Your task to perform on an android device: Clear the shopping cart on bestbuy. Search for "alienware aurora" on bestbuy, select the first entry, and add it to the cart. Image 0: 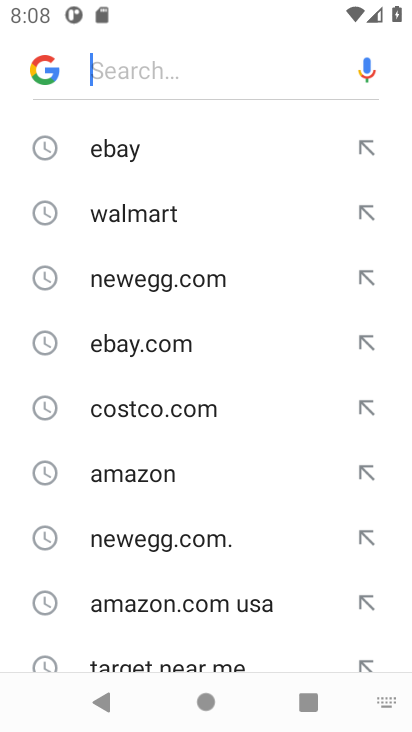
Step 0: click (250, 533)
Your task to perform on an android device: Clear the shopping cart on bestbuy. Search for "alienware aurora" on bestbuy, select the first entry, and add it to the cart. Image 1: 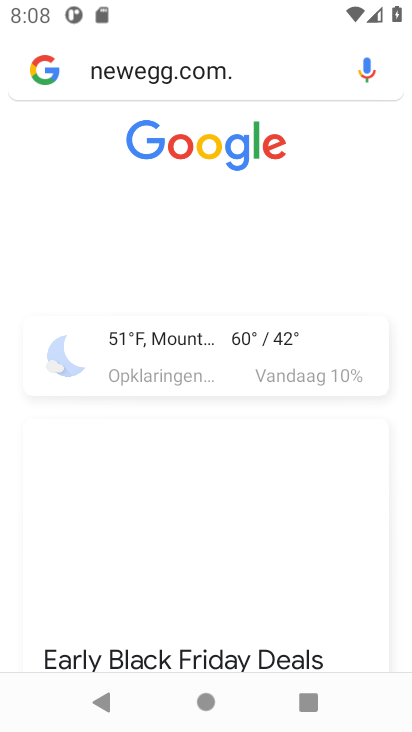
Step 1: press home button
Your task to perform on an android device: Clear the shopping cart on bestbuy. Search for "alienware aurora" on bestbuy, select the first entry, and add it to the cart. Image 2: 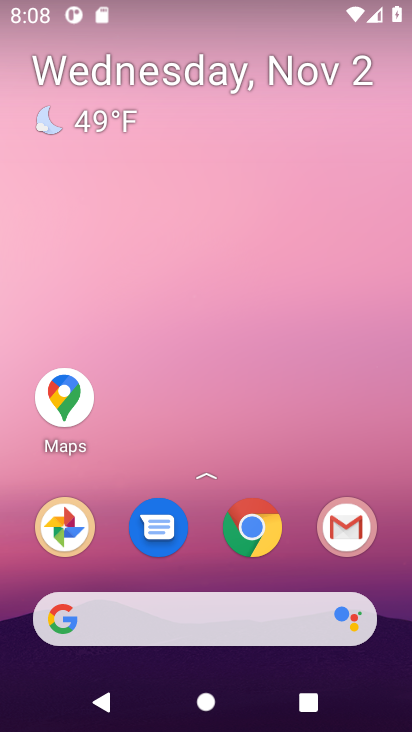
Step 2: click (257, 520)
Your task to perform on an android device: Clear the shopping cart on bestbuy. Search for "alienware aurora" on bestbuy, select the first entry, and add it to the cart. Image 3: 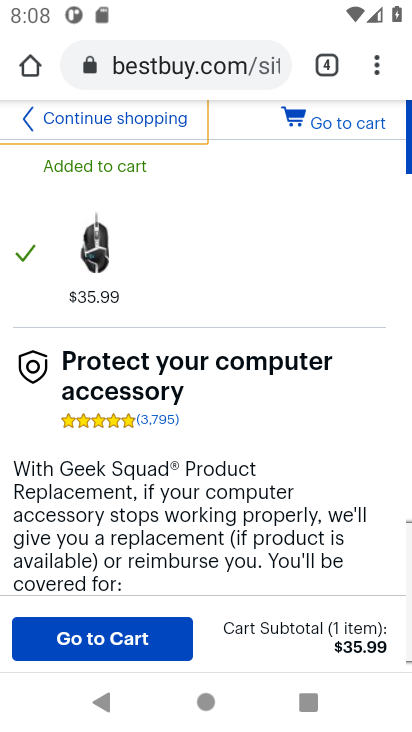
Step 3: click (325, 125)
Your task to perform on an android device: Clear the shopping cart on bestbuy. Search for "alienware aurora" on bestbuy, select the first entry, and add it to the cart. Image 4: 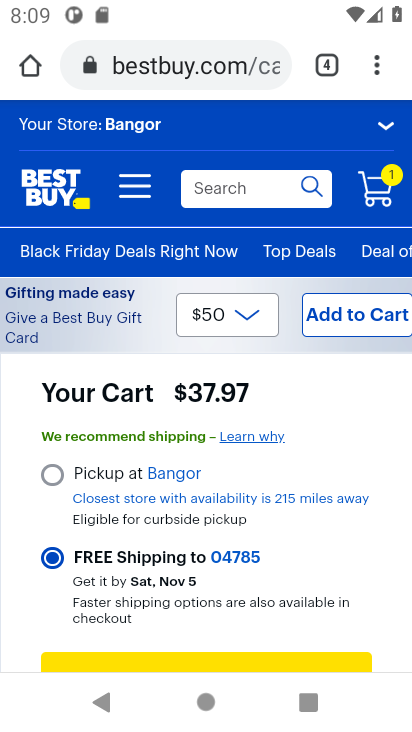
Step 4: drag from (368, 493) to (295, 6)
Your task to perform on an android device: Clear the shopping cart on bestbuy. Search for "alienware aurora" on bestbuy, select the first entry, and add it to the cart. Image 5: 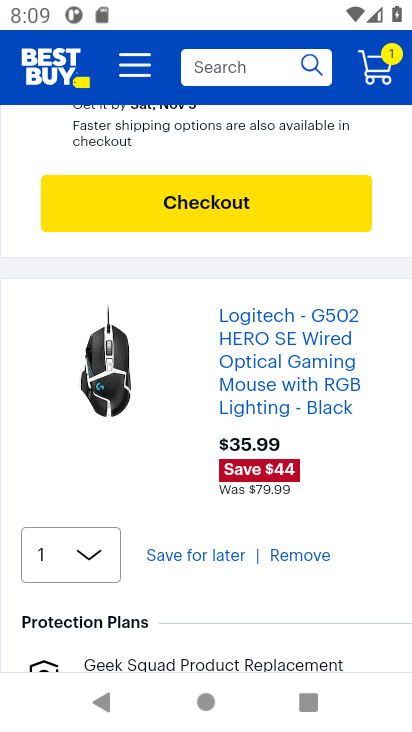
Step 5: click (296, 554)
Your task to perform on an android device: Clear the shopping cart on bestbuy. Search for "alienware aurora" on bestbuy, select the first entry, and add it to the cart. Image 6: 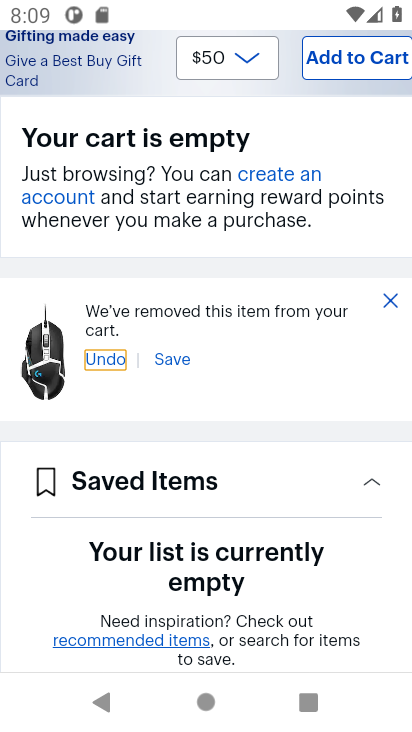
Step 6: drag from (227, 275) to (271, 589)
Your task to perform on an android device: Clear the shopping cart on bestbuy. Search for "alienware aurora" on bestbuy, select the first entry, and add it to the cart. Image 7: 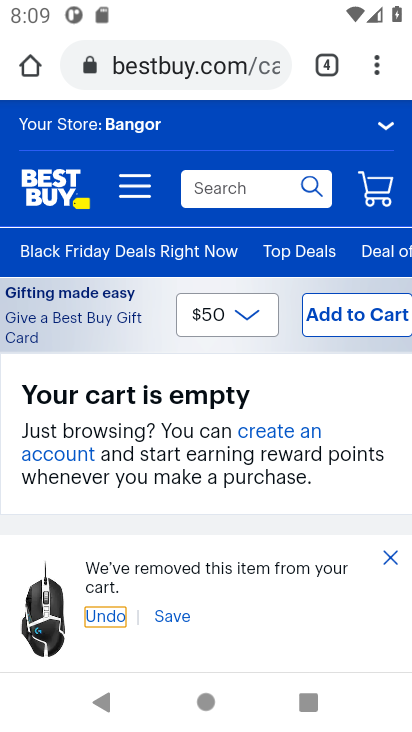
Step 7: click (245, 188)
Your task to perform on an android device: Clear the shopping cart on bestbuy. Search for "alienware aurora" on bestbuy, select the first entry, and add it to the cart. Image 8: 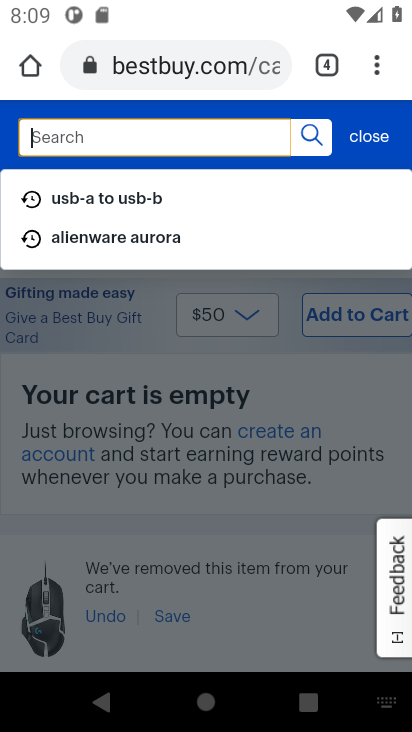
Step 8: type "alienware aurora"
Your task to perform on an android device: Clear the shopping cart on bestbuy. Search for "alienware aurora" on bestbuy, select the first entry, and add it to the cart. Image 9: 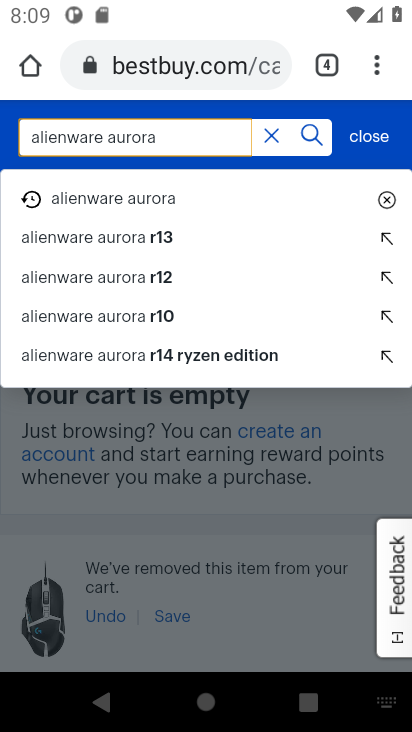
Step 9: click (100, 199)
Your task to perform on an android device: Clear the shopping cart on bestbuy. Search for "alienware aurora" on bestbuy, select the first entry, and add it to the cart. Image 10: 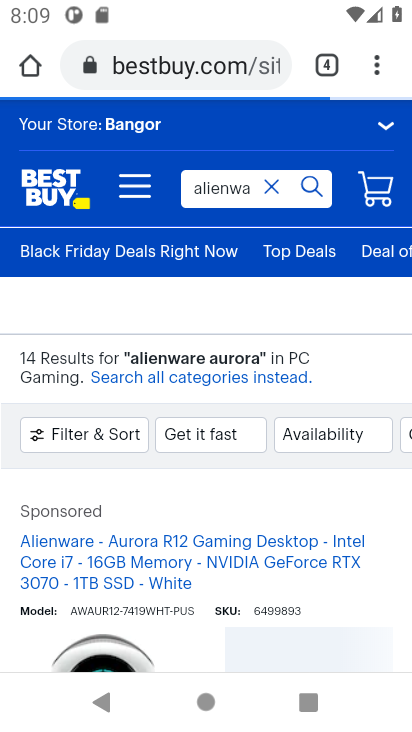
Step 10: drag from (224, 510) to (186, 271)
Your task to perform on an android device: Clear the shopping cart on bestbuy. Search for "alienware aurora" on bestbuy, select the first entry, and add it to the cart. Image 11: 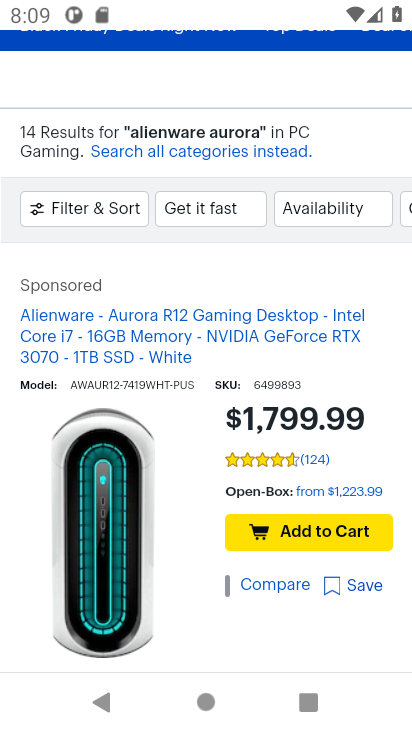
Step 11: click (130, 498)
Your task to perform on an android device: Clear the shopping cart on bestbuy. Search for "alienware aurora" on bestbuy, select the first entry, and add it to the cart. Image 12: 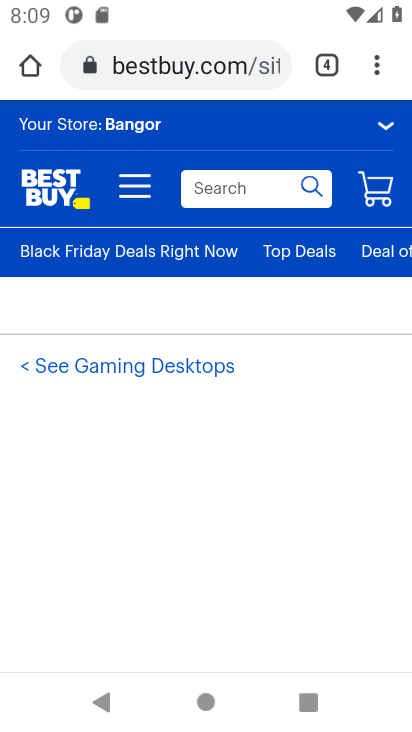
Step 12: drag from (262, 410) to (230, 226)
Your task to perform on an android device: Clear the shopping cart on bestbuy. Search for "alienware aurora" on bestbuy, select the first entry, and add it to the cart. Image 13: 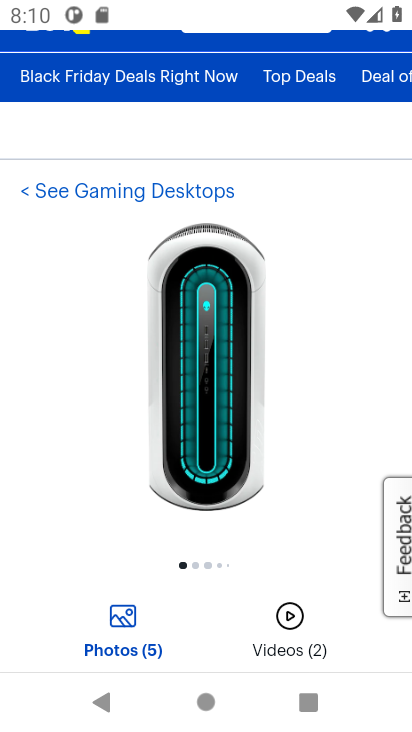
Step 13: drag from (81, 575) to (157, 8)
Your task to perform on an android device: Clear the shopping cart on bestbuy. Search for "alienware aurora" on bestbuy, select the first entry, and add it to the cart. Image 14: 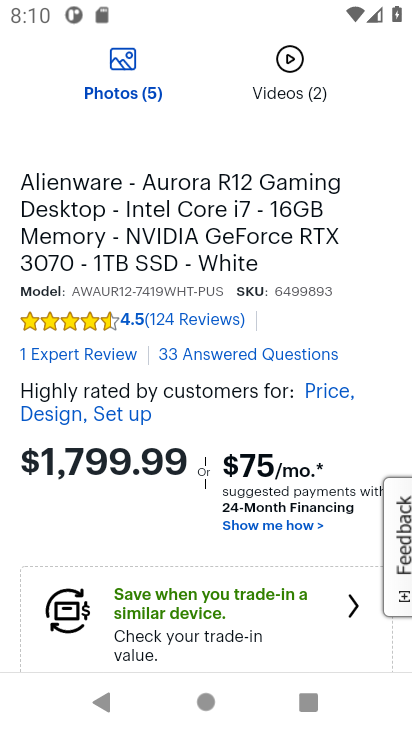
Step 14: drag from (215, 424) to (262, 3)
Your task to perform on an android device: Clear the shopping cart on bestbuy. Search for "alienware aurora" on bestbuy, select the first entry, and add it to the cart. Image 15: 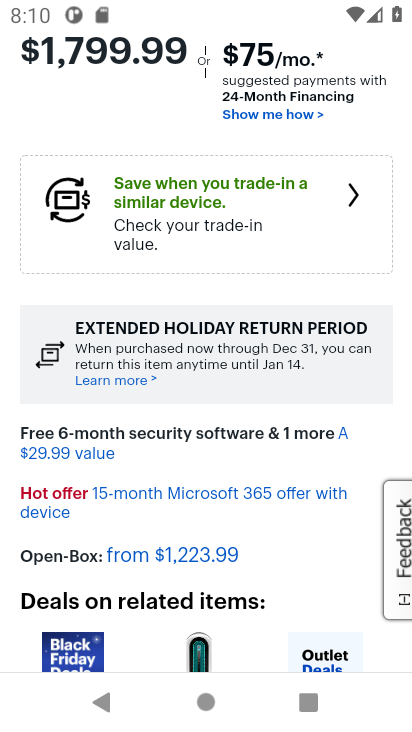
Step 15: drag from (323, 553) to (195, 2)
Your task to perform on an android device: Clear the shopping cart on bestbuy. Search for "alienware aurora" on bestbuy, select the first entry, and add it to the cart. Image 16: 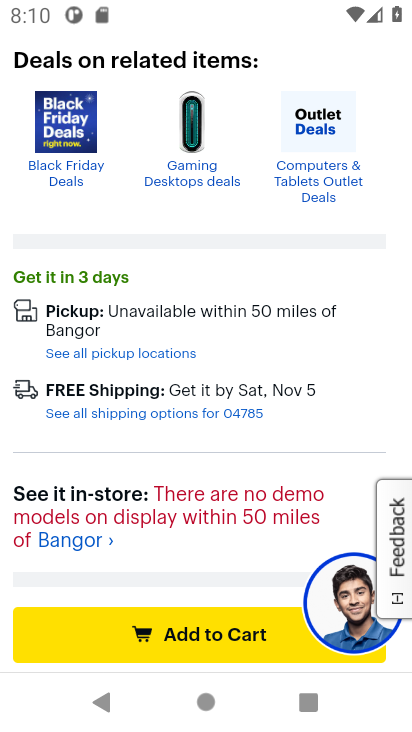
Step 16: click (189, 642)
Your task to perform on an android device: Clear the shopping cart on bestbuy. Search for "alienware aurora" on bestbuy, select the first entry, and add it to the cart. Image 17: 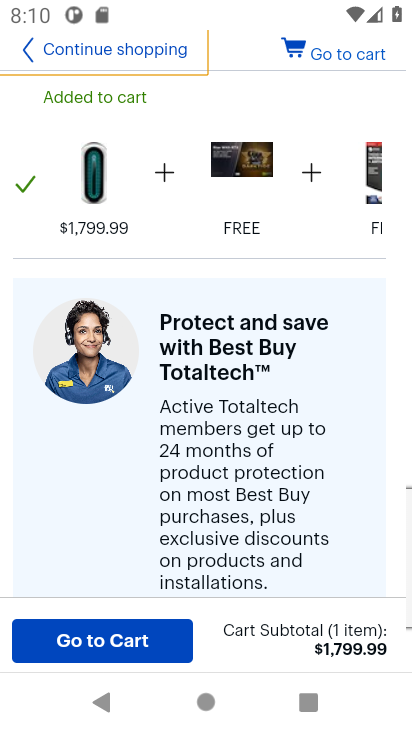
Step 17: task complete